Your task to perform on an android device: search for starred emails in the gmail app Image 0: 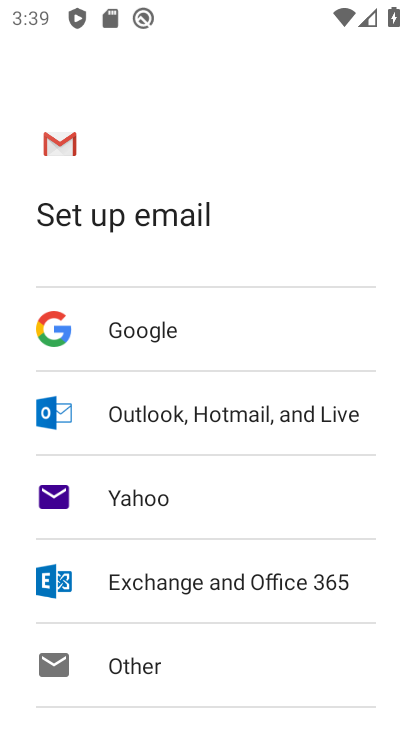
Step 0: press home button
Your task to perform on an android device: search for starred emails in the gmail app Image 1: 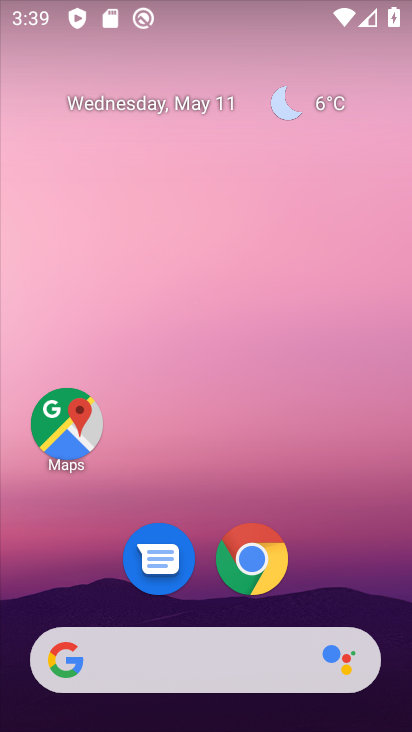
Step 1: drag from (359, 544) to (397, 281)
Your task to perform on an android device: search for starred emails in the gmail app Image 2: 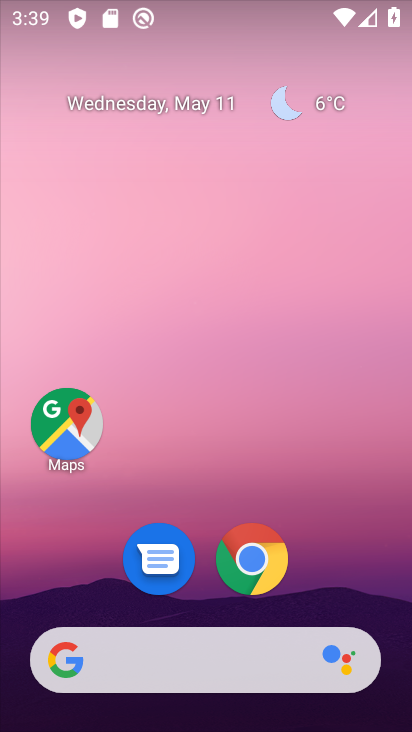
Step 2: drag from (326, 559) to (312, 148)
Your task to perform on an android device: search for starred emails in the gmail app Image 3: 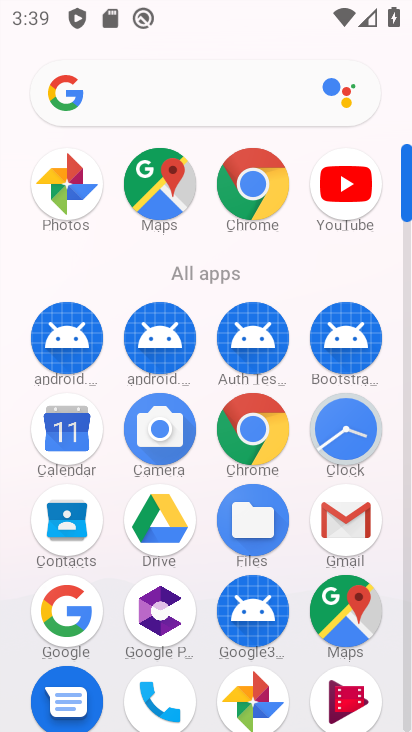
Step 3: click (356, 517)
Your task to perform on an android device: search for starred emails in the gmail app Image 4: 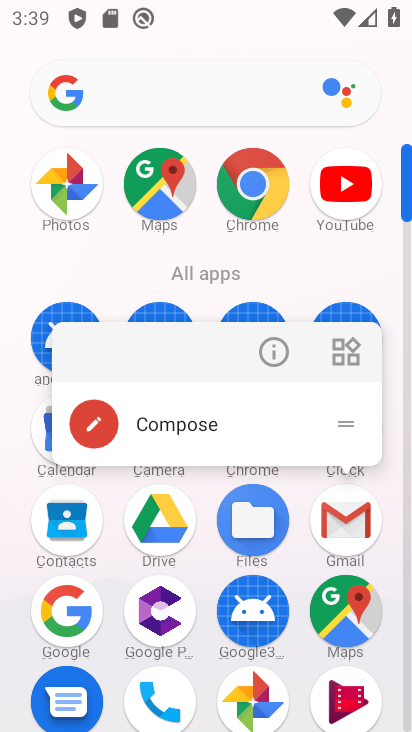
Step 4: click (337, 541)
Your task to perform on an android device: search for starred emails in the gmail app Image 5: 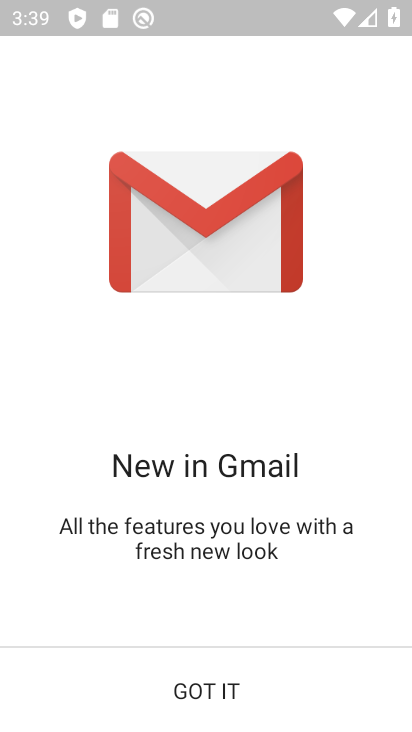
Step 5: click (213, 687)
Your task to perform on an android device: search for starred emails in the gmail app Image 6: 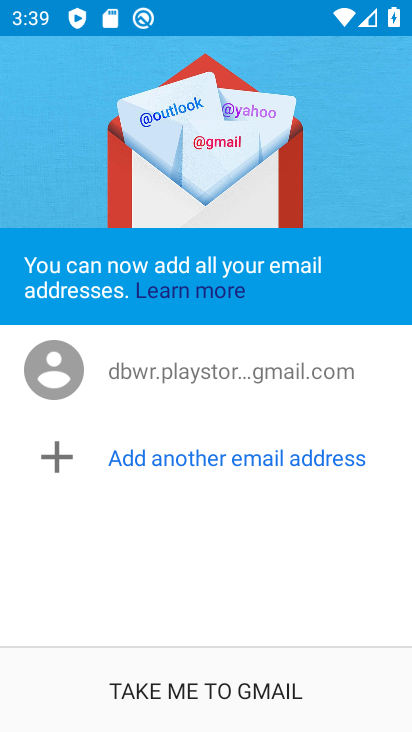
Step 6: click (213, 686)
Your task to perform on an android device: search for starred emails in the gmail app Image 7: 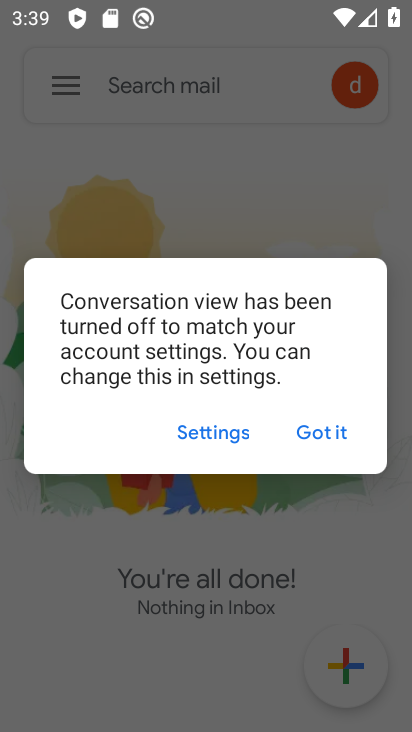
Step 7: click (334, 431)
Your task to perform on an android device: search for starred emails in the gmail app Image 8: 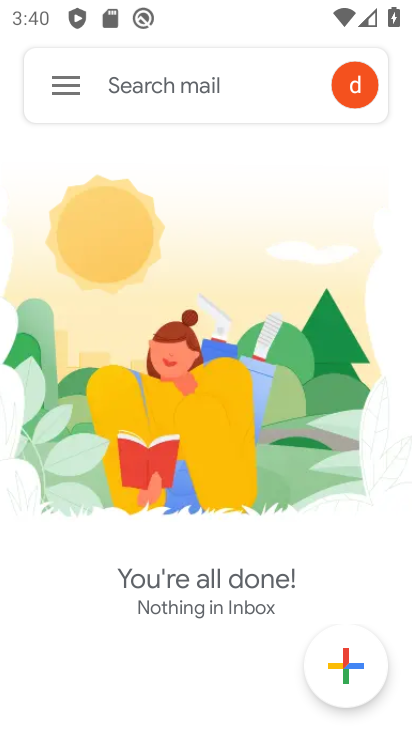
Step 8: click (81, 73)
Your task to perform on an android device: search for starred emails in the gmail app Image 9: 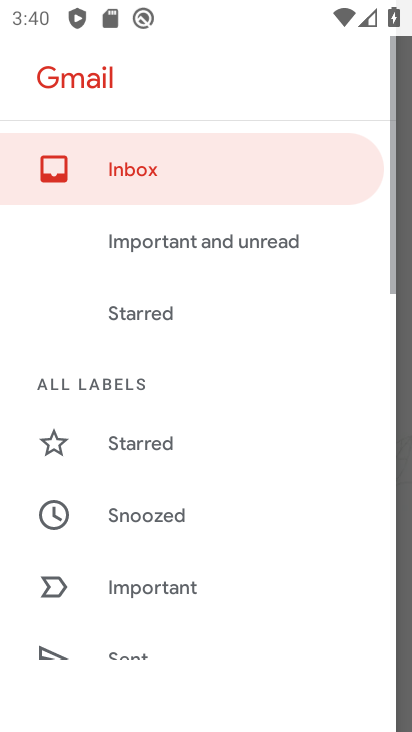
Step 9: drag from (181, 553) to (189, 189)
Your task to perform on an android device: search for starred emails in the gmail app Image 10: 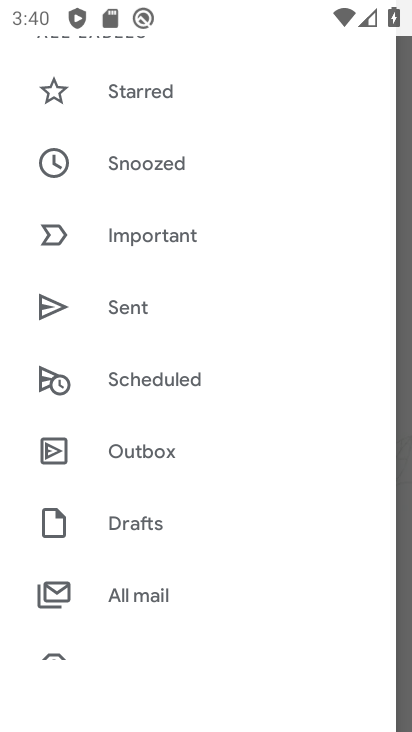
Step 10: click (134, 93)
Your task to perform on an android device: search for starred emails in the gmail app Image 11: 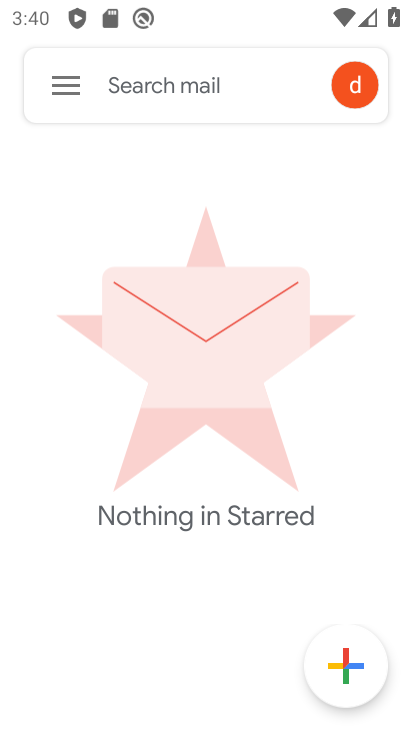
Step 11: task complete